Your task to perform on an android device: check google app version Image 0: 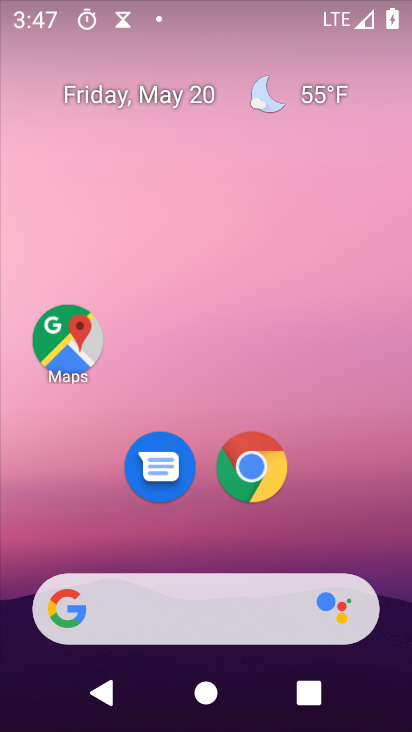
Step 0: drag from (245, 538) to (232, 0)
Your task to perform on an android device: check google app version Image 1: 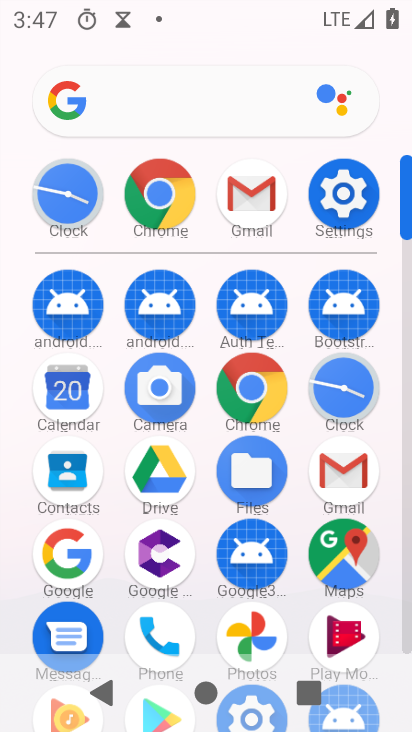
Step 1: click (61, 559)
Your task to perform on an android device: check google app version Image 2: 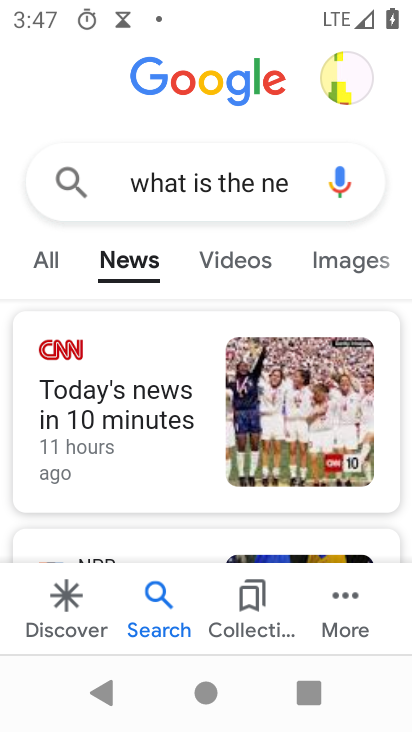
Step 2: click (331, 615)
Your task to perform on an android device: check google app version Image 3: 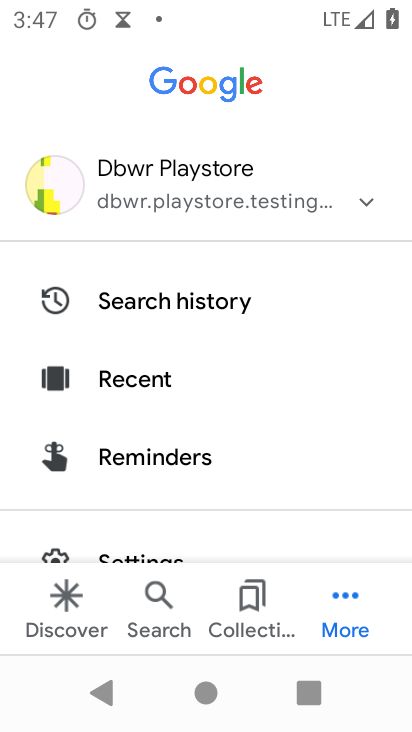
Step 3: drag from (177, 505) to (183, 128)
Your task to perform on an android device: check google app version Image 4: 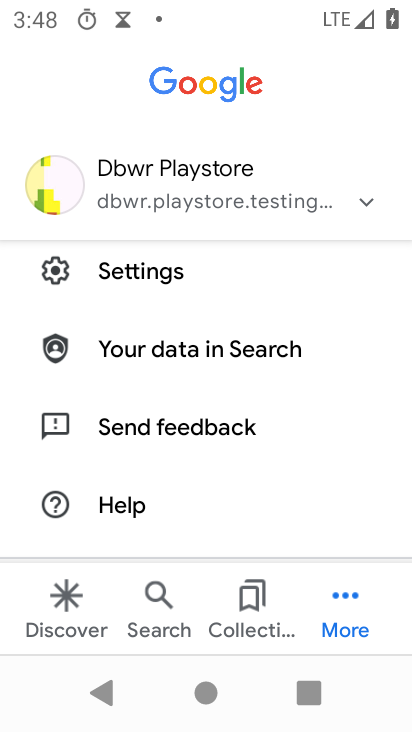
Step 4: click (154, 277)
Your task to perform on an android device: check google app version Image 5: 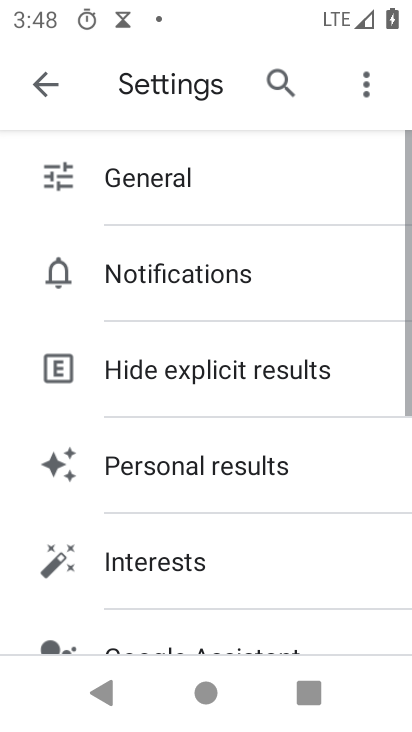
Step 5: drag from (169, 477) to (201, 80)
Your task to perform on an android device: check google app version Image 6: 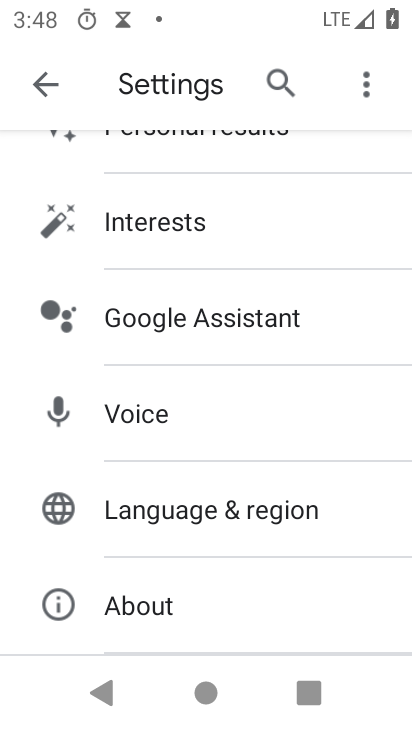
Step 6: click (178, 615)
Your task to perform on an android device: check google app version Image 7: 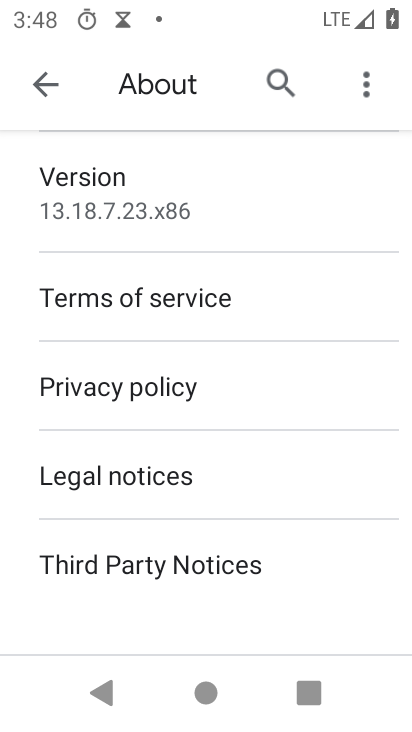
Step 7: click (166, 215)
Your task to perform on an android device: check google app version Image 8: 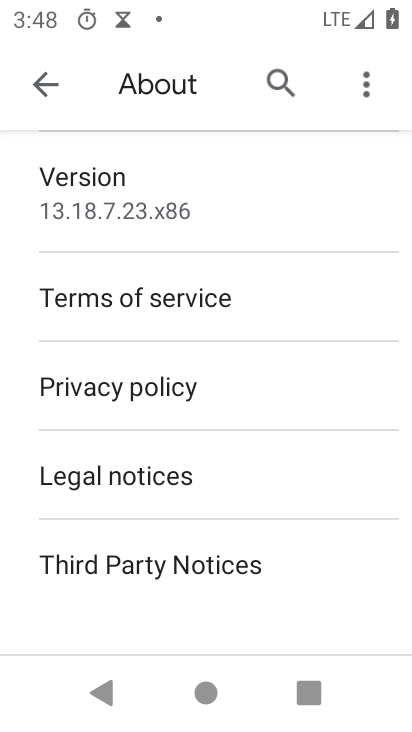
Step 8: task complete